Your task to perform on an android device: Go to network settings Image 0: 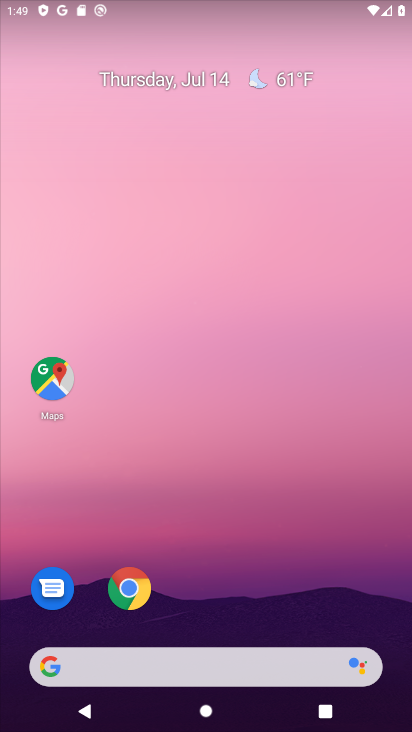
Step 0: drag from (189, 614) to (192, 85)
Your task to perform on an android device: Go to network settings Image 1: 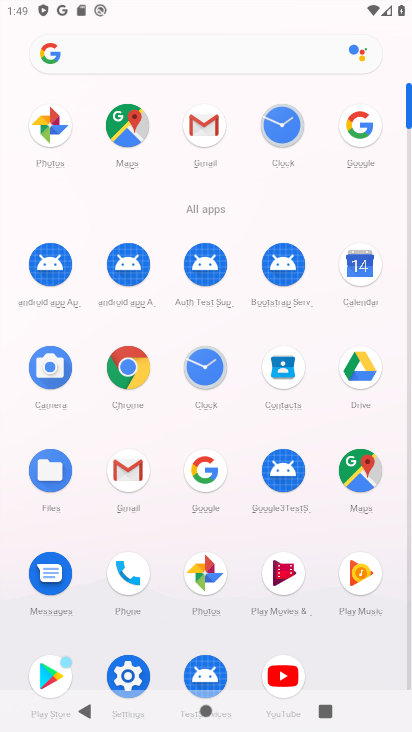
Step 1: click (133, 670)
Your task to perform on an android device: Go to network settings Image 2: 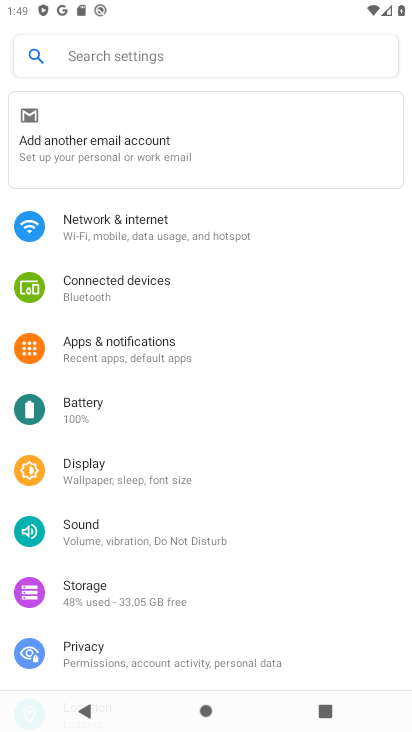
Step 2: click (148, 227)
Your task to perform on an android device: Go to network settings Image 3: 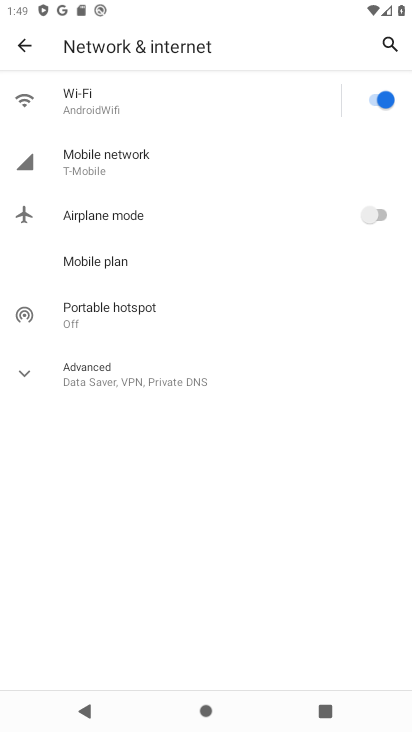
Step 3: click (138, 165)
Your task to perform on an android device: Go to network settings Image 4: 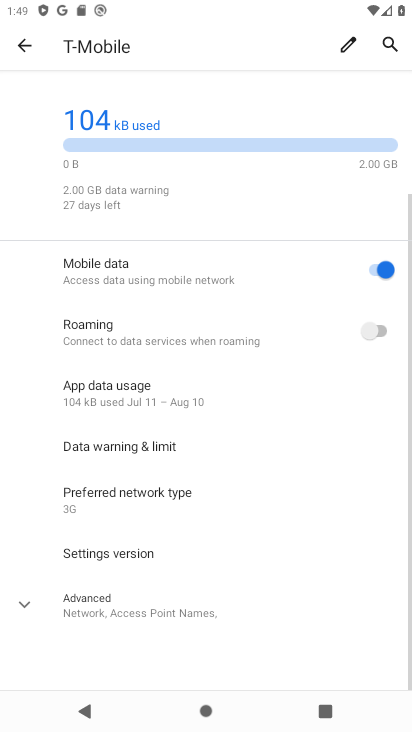
Step 4: task complete